Your task to perform on an android device: Open calendar and show me the first week of next month Image 0: 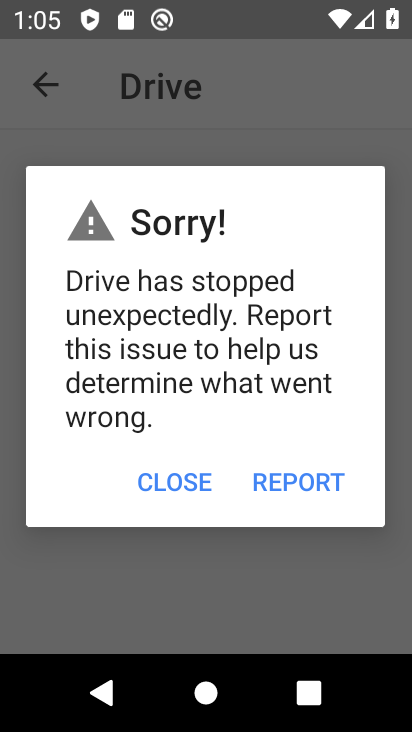
Step 0: press home button
Your task to perform on an android device: Open calendar and show me the first week of next month Image 1: 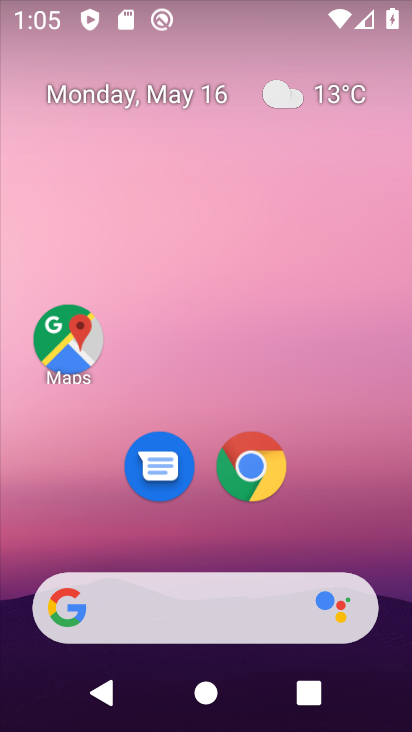
Step 1: drag from (215, 475) to (214, 94)
Your task to perform on an android device: Open calendar and show me the first week of next month Image 2: 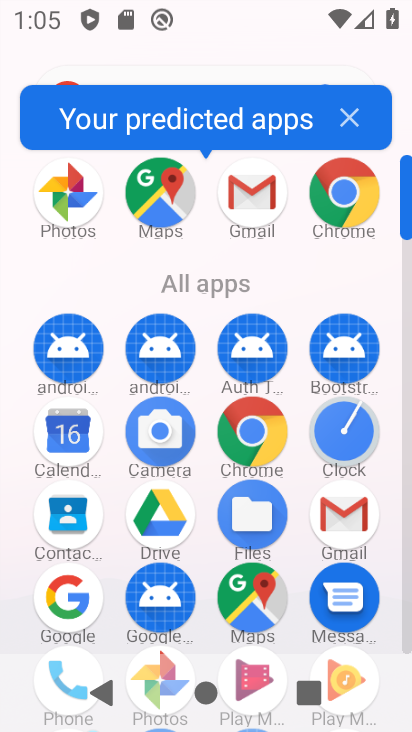
Step 2: click (83, 438)
Your task to perform on an android device: Open calendar and show me the first week of next month Image 3: 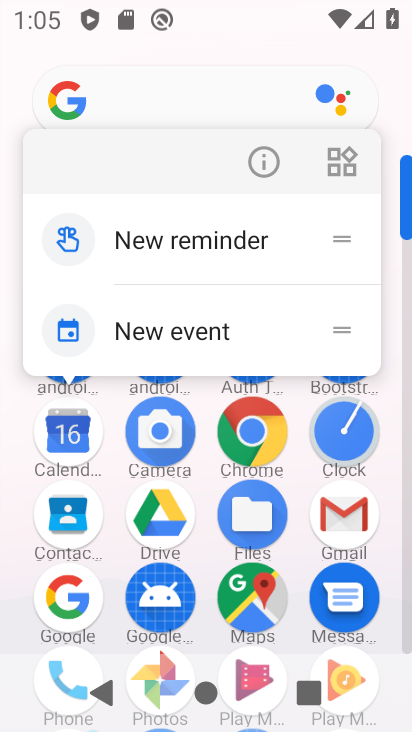
Step 3: click (82, 427)
Your task to perform on an android device: Open calendar and show me the first week of next month Image 4: 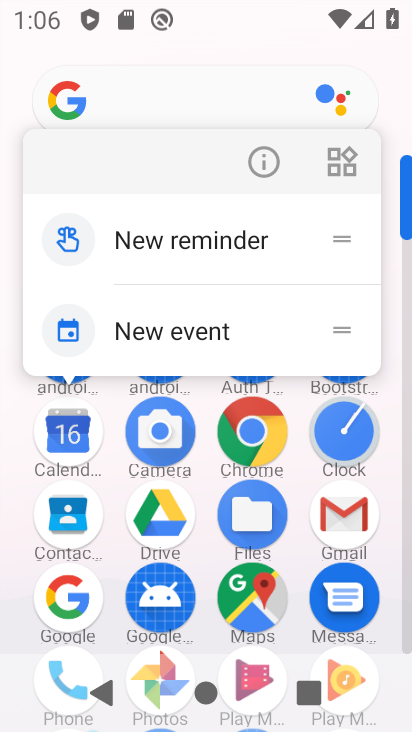
Step 4: click (69, 422)
Your task to perform on an android device: Open calendar and show me the first week of next month Image 5: 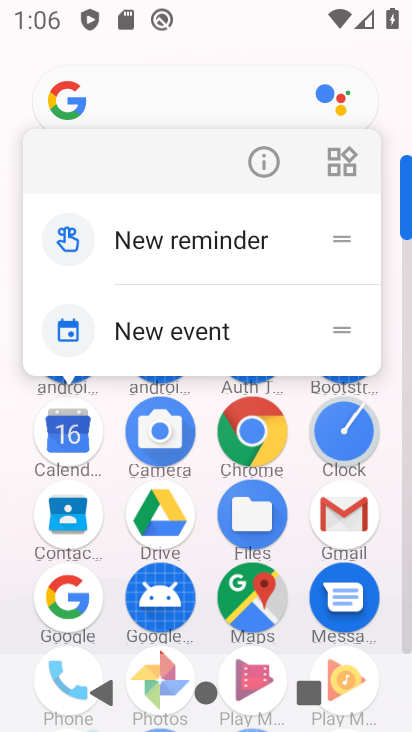
Step 5: click (66, 440)
Your task to perform on an android device: Open calendar and show me the first week of next month Image 6: 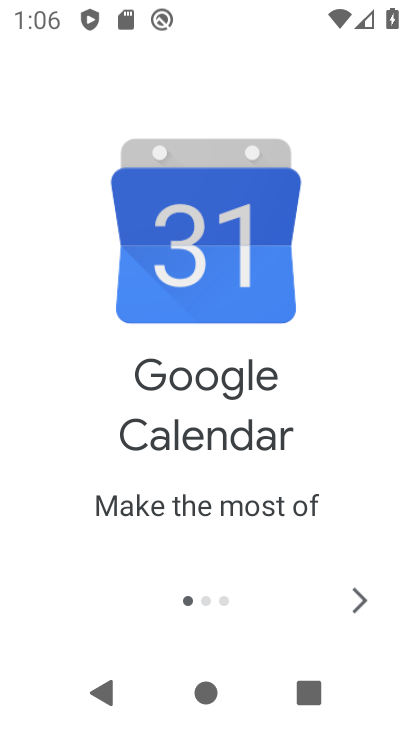
Step 6: click (351, 598)
Your task to perform on an android device: Open calendar and show me the first week of next month Image 7: 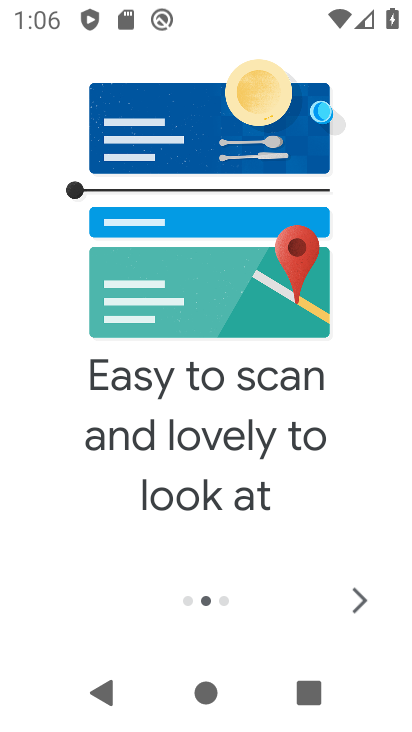
Step 7: click (351, 598)
Your task to perform on an android device: Open calendar and show me the first week of next month Image 8: 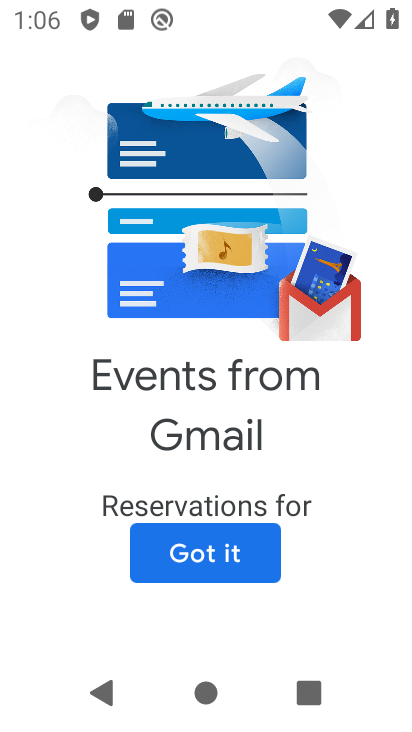
Step 8: click (268, 538)
Your task to perform on an android device: Open calendar and show me the first week of next month Image 9: 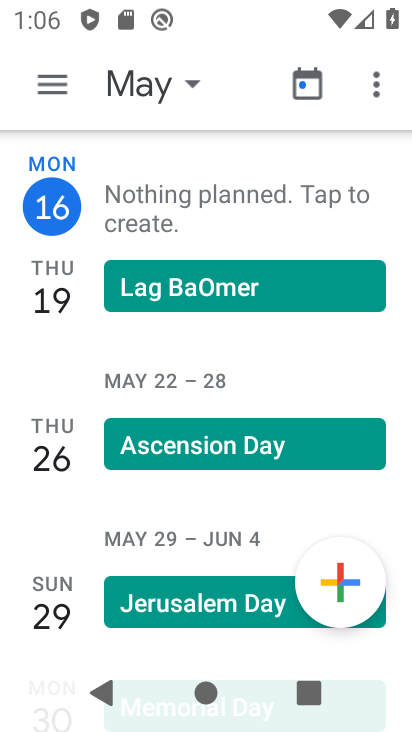
Step 9: click (58, 84)
Your task to perform on an android device: Open calendar and show me the first week of next month Image 10: 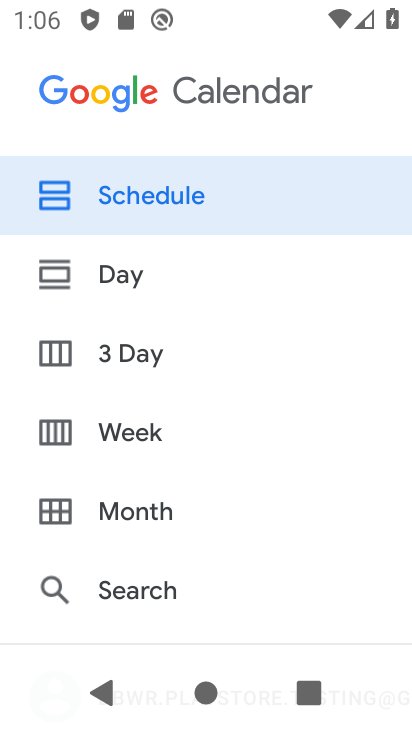
Step 10: click (60, 430)
Your task to perform on an android device: Open calendar and show me the first week of next month Image 11: 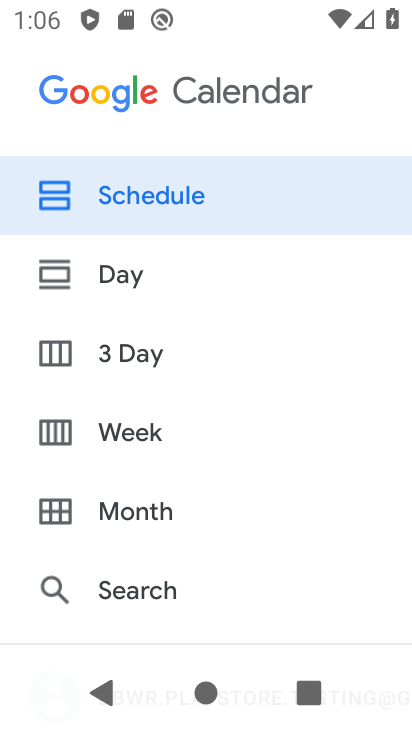
Step 11: click (61, 426)
Your task to perform on an android device: Open calendar and show me the first week of next month Image 12: 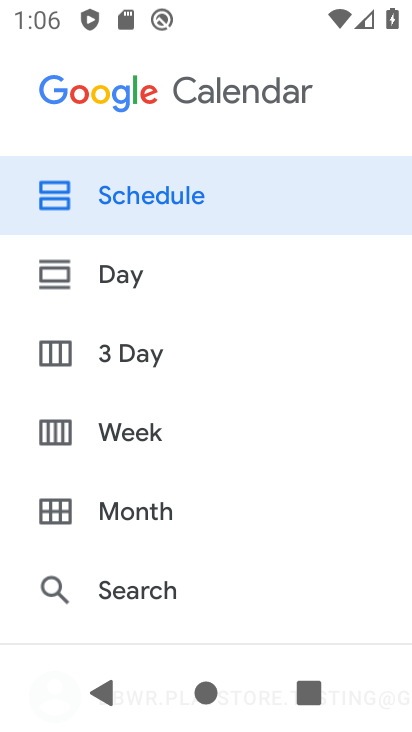
Step 12: click (113, 437)
Your task to perform on an android device: Open calendar and show me the first week of next month Image 13: 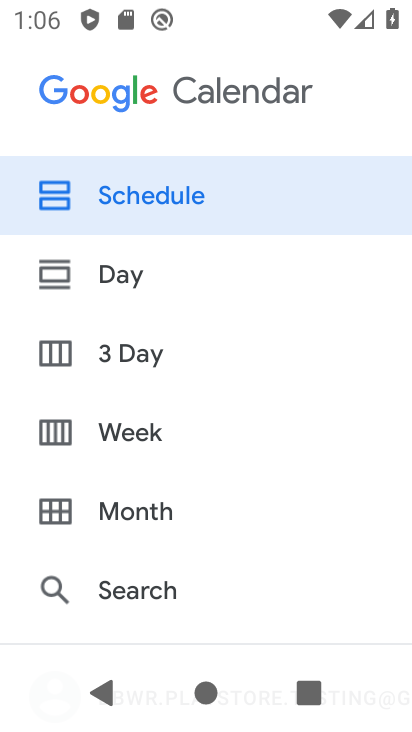
Step 13: click (51, 421)
Your task to perform on an android device: Open calendar and show me the first week of next month Image 14: 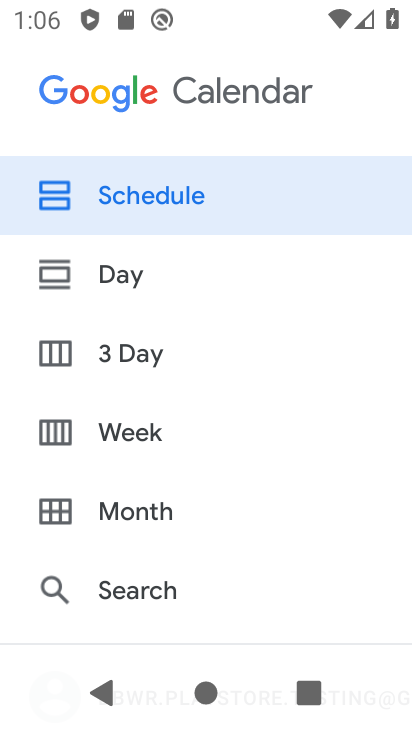
Step 14: click (51, 424)
Your task to perform on an android device: Open calendar and show me the first week of next month Image 15: 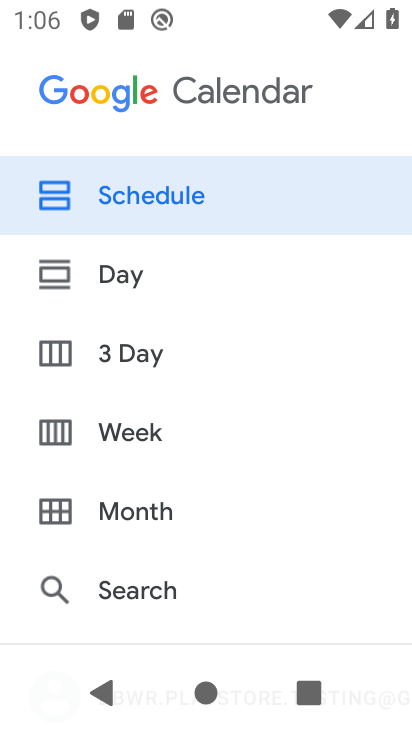
Step 15: click (70, 435)
Your task to perform on an android device: Open calendar and show me the first week of next month Image 16: 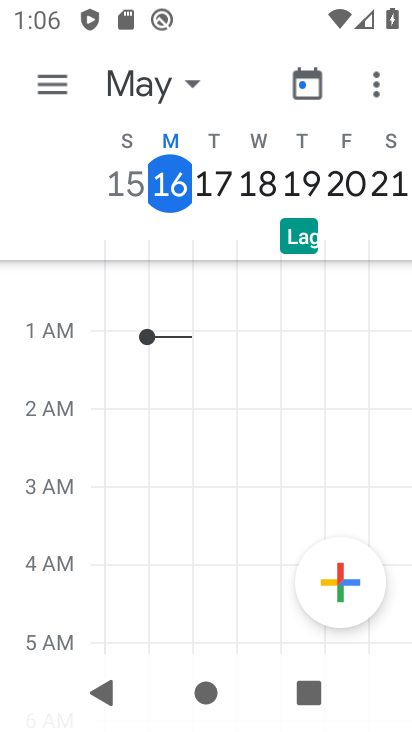
Step 16: task complete